Your task to perform on an android device: Show me popular games on the Play Store Image 0: 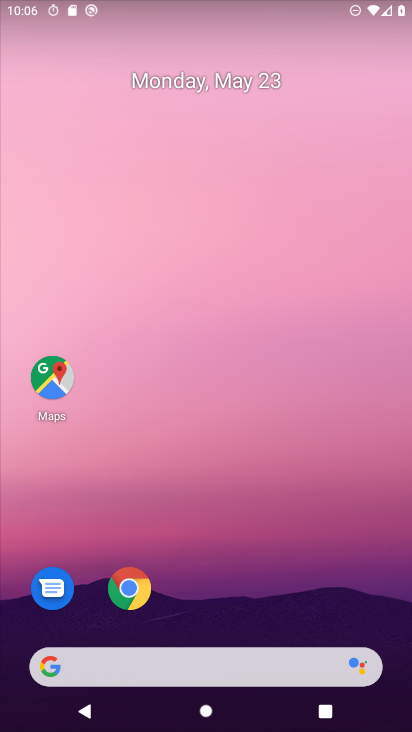
Step 0: drag from (404, 596) to (400, 207)
Your task to perform on an android device: Show me popular games on the Play Store Image 1: 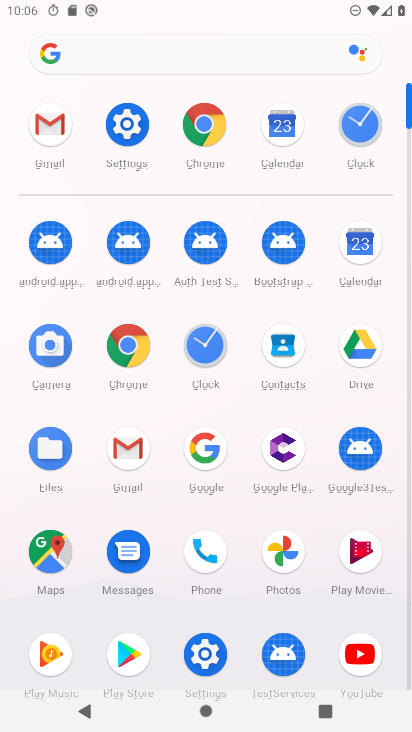
Step 1: click (136, 654)
Your task to perform on an android device: Show me popular games on the Play Store Image 2: 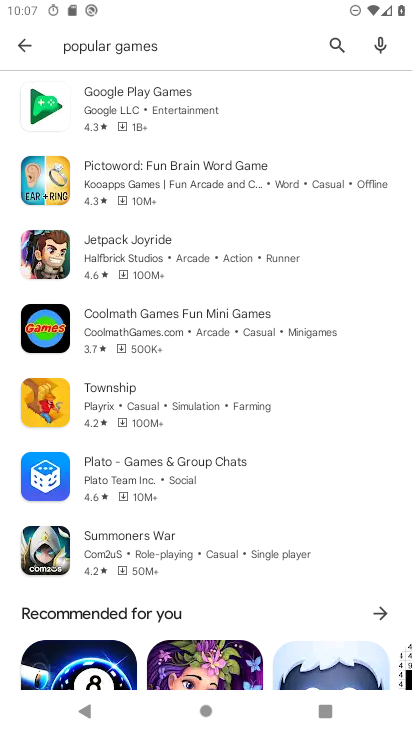
Step 2: task complete